Your task to perform on an android device: Open network settings Image 0: 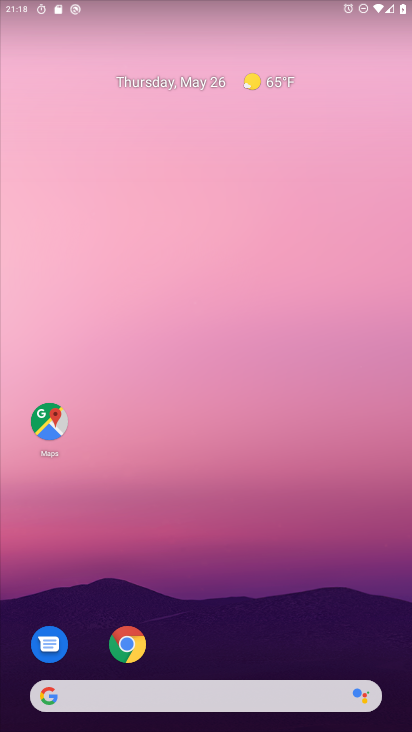
Step 0: drag from (193, 648) to (181, 50)
Your task to perform on an android device: Open network settings Image 1: 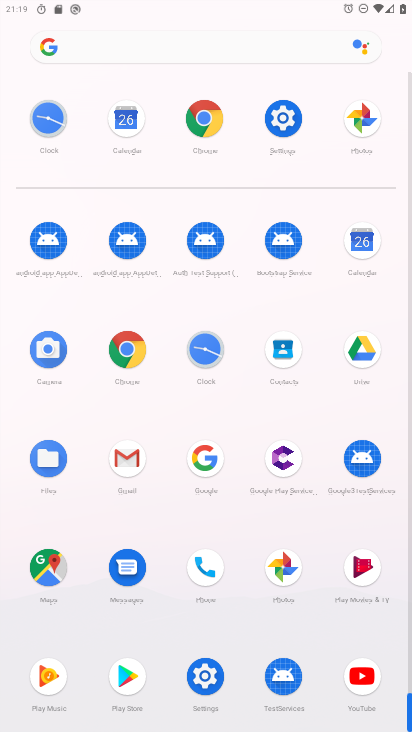
Step 1: click (282, 118)
Your task to perform on an android device: Open network settings Image 2: 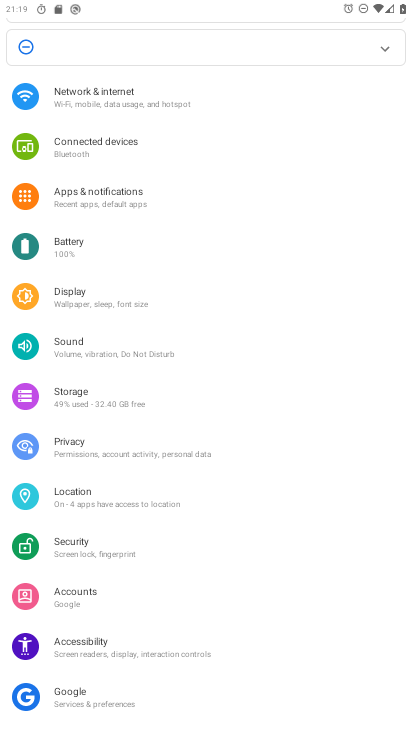
Step 2: click (134, 90)
Your task to perform on an android device: Open network settings Image 3: 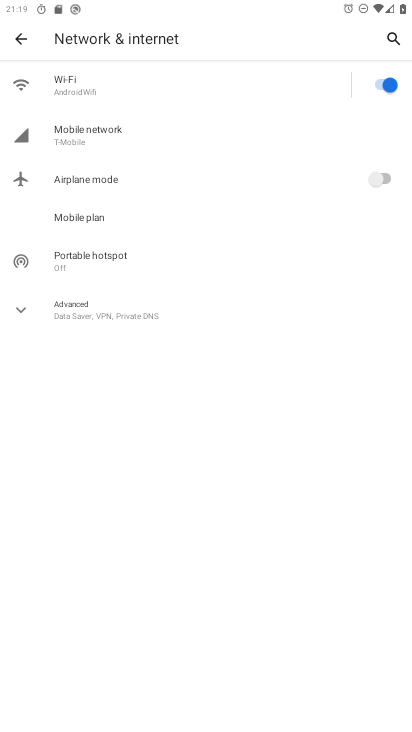
Step 3: click (145, 133)
Your task to perform on an android device: Open network settings Image 4: 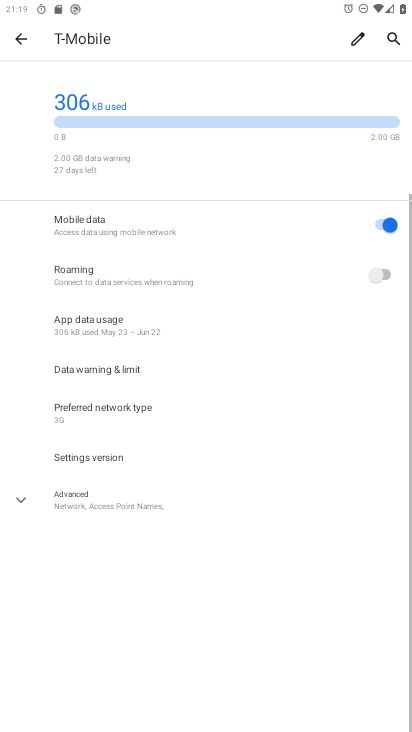
Step 4: task complete